Your task to perform on an android device: Open Google Chrome and open the bookmarks view Image 0: 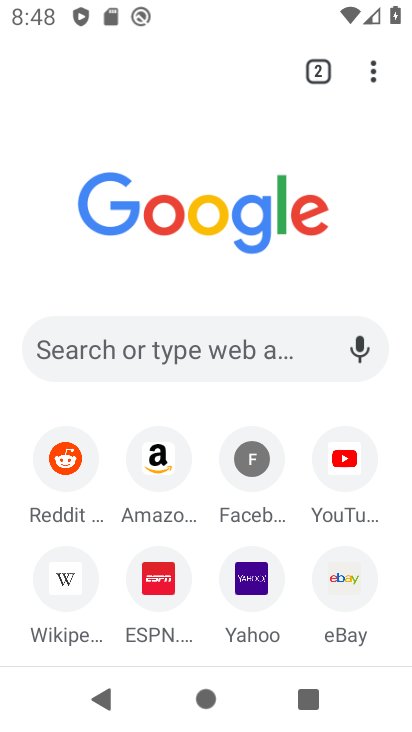
Step 0: click (379, 76)
Your task to perform on an android device: Open Google Chrome and open the bookmarks view Image 1: 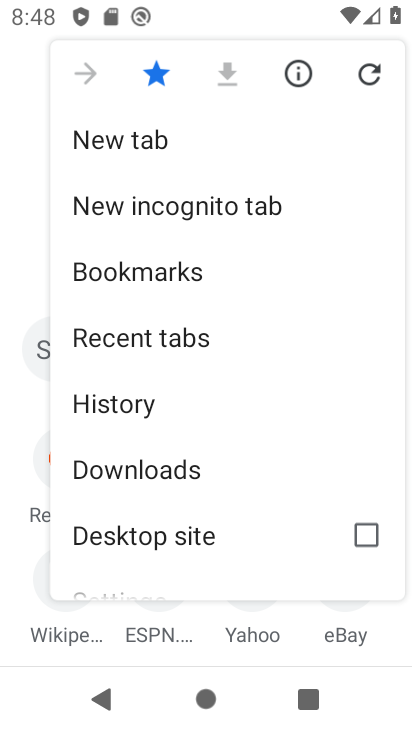
Step 1: click (152, 281)
Your task to perform on an android device: Open Google Chrome and open the bookmarks view Image 2: 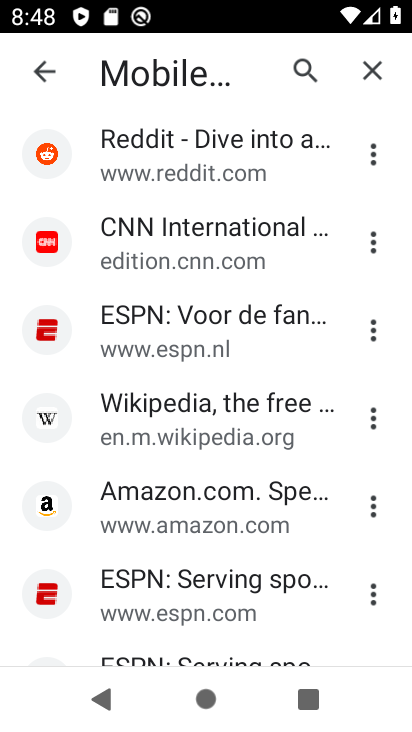
Step 2: task complete